Your task to perform on an android device: Go to Yahoo.com Image 0: 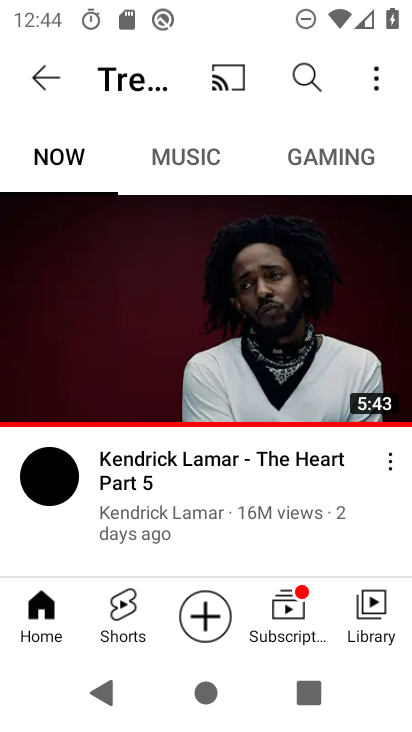
Step 0: press home button
Your task to perform on an android device: Go to Yahoo.com Image 1: 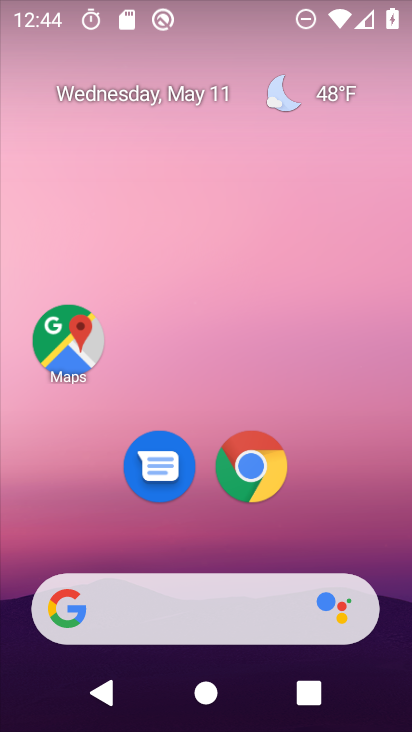
Step 1: click (248, 466)
Your task to perform on an android device: Go to Yahoo.com Image 2: 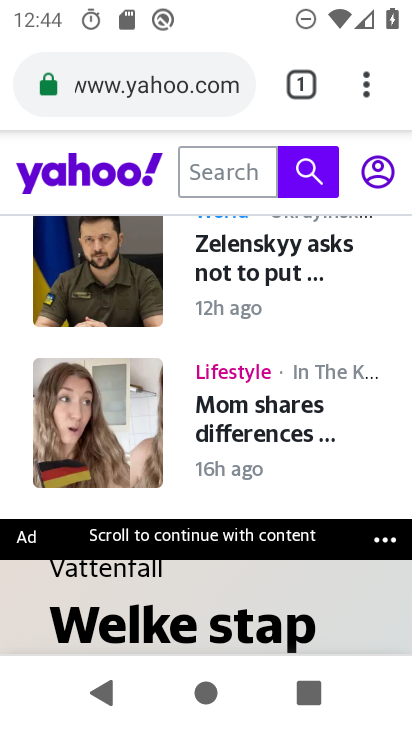
Step 2: task complete